Your task to perform on an android device: Search for a dining table on Crate & Barrel Image 0: 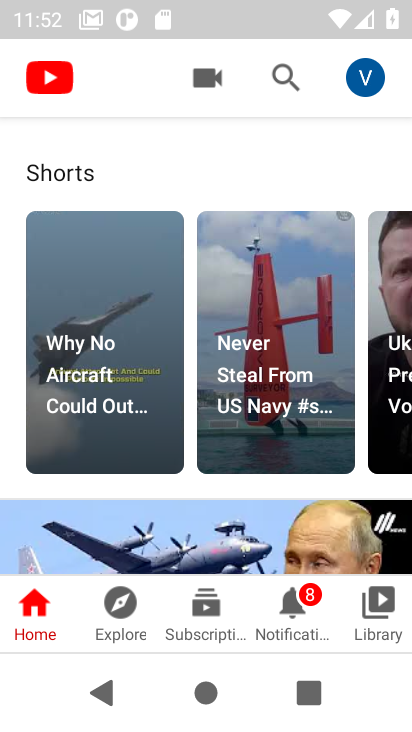
Step 0: press home button
Your task to perform on an android device: Search for a dining table on Crate & Barrel Image 1: 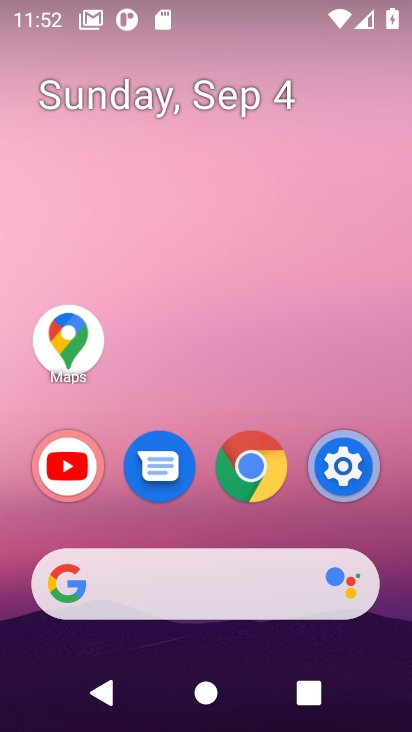
Step 1: click (268, 465)
Your task to perform on an android device: Search for a dining table on Crate & Barrel Image 2: 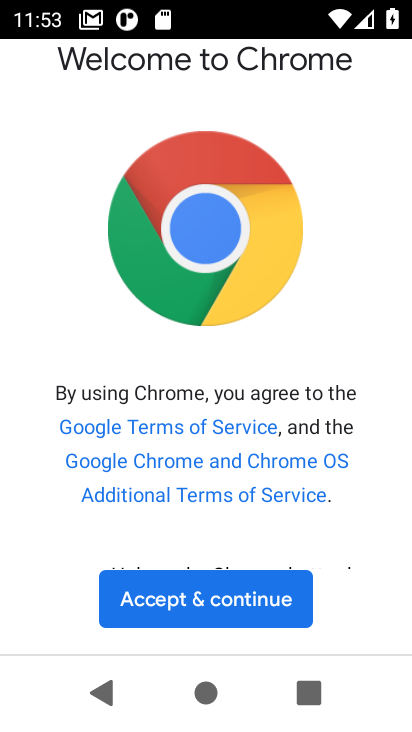
Step 2: click (192, 586)
Your task to perform on an android device: Search for a dining table on Crate & Barrel Image 3: 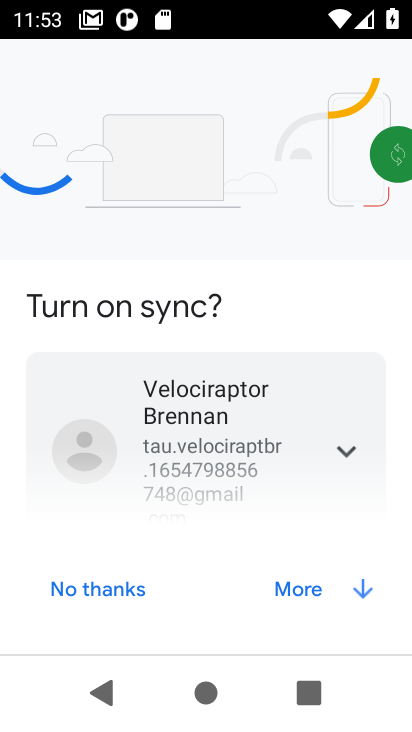
Step 3: press home button
Your task to perform on an android device: Search for a dining table on Crate & Barrel Image 4: 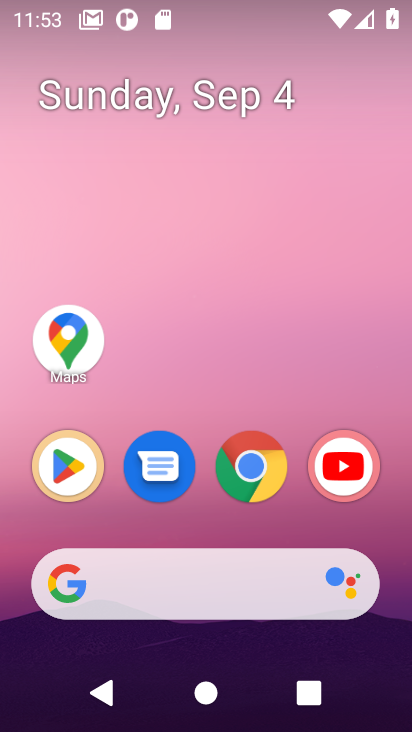
Step 4: click (224, 472)
Your task to perform on an android device: Search for a dining table on Crate & Barrel Image 5: 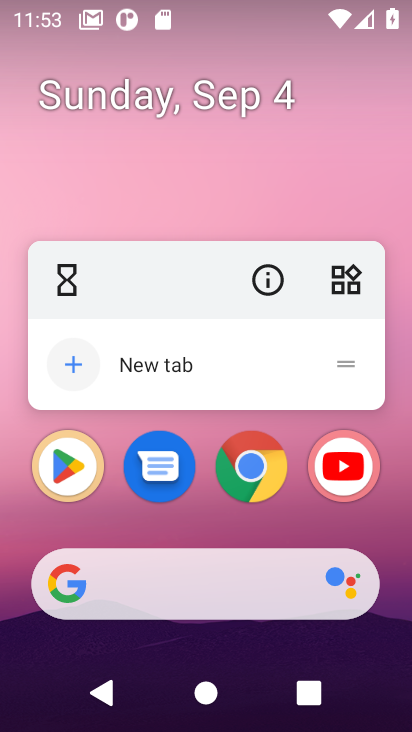
Step 5: click (240, 479)
Your task to perform on an android device: Search for a dining table on Crate & Barrel Image 6: 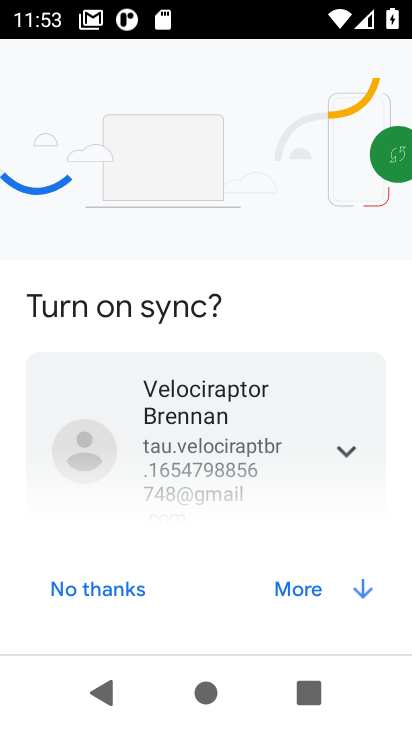
Step 6: click (303, 580)
Your task to perform on an android device: Search for a dining table on Crate & Barrel Image 7: 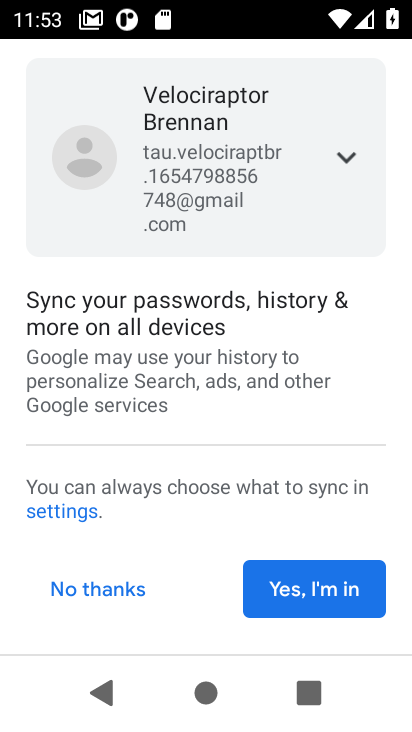
Step 7: click (303, 580)
Your task to perform on an android device: Search for a dining table on Crate & Barrel Image 8: 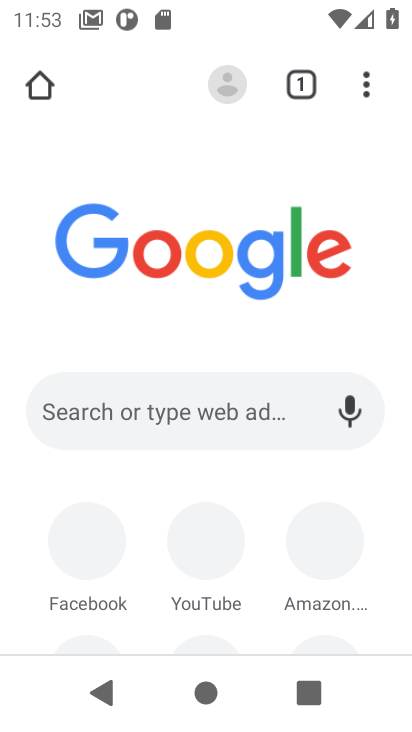
Step 8: click (193, 680)
Your task to perform on an android device: Search for a dining table on Crate & Barrel Image 9: 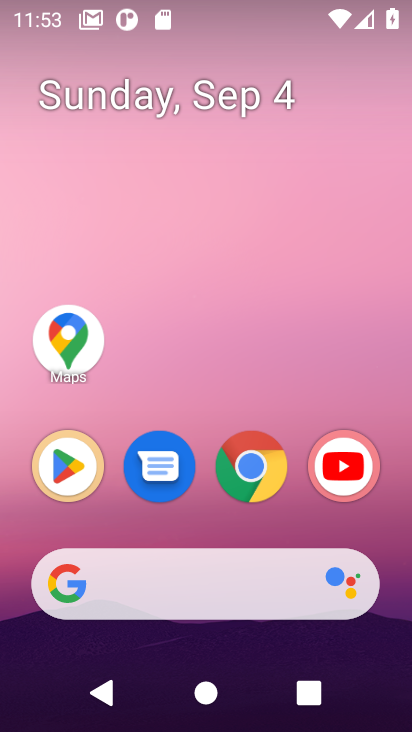
Step 9: click (300, 487)
Your task to perform on an android device: Search for a dining table on Crate & Barrel Image 10: 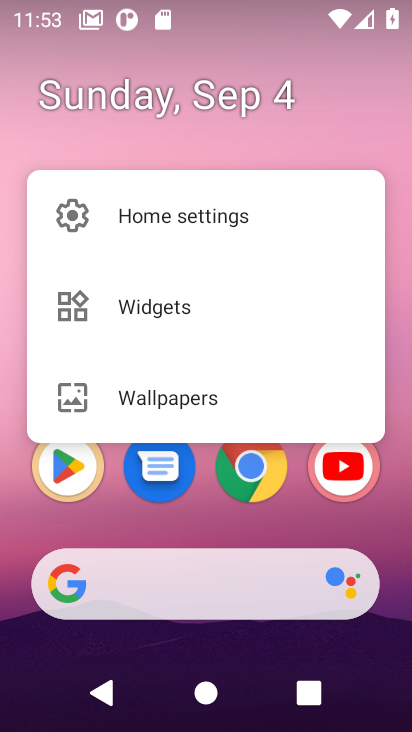
Step 10: click (270, 477)
Your task to perform on an android device: Search for a dining table on Crate & Barrel Image 11: 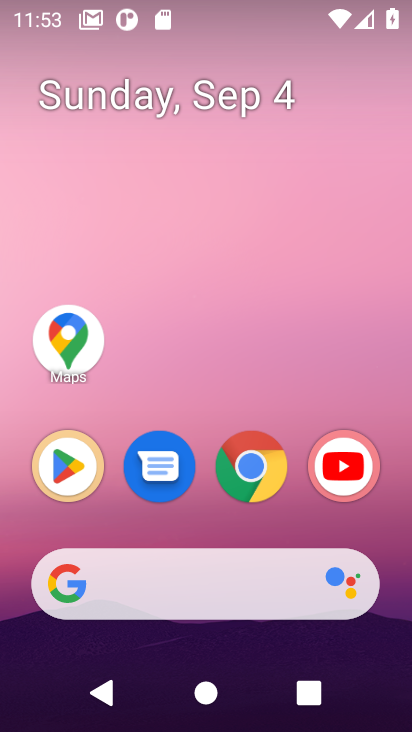
Step 11: drag from (315, 545) to (361, 2)
Your task to perform on an android device: Search for a dining table on Crate & Barrel Image 12: 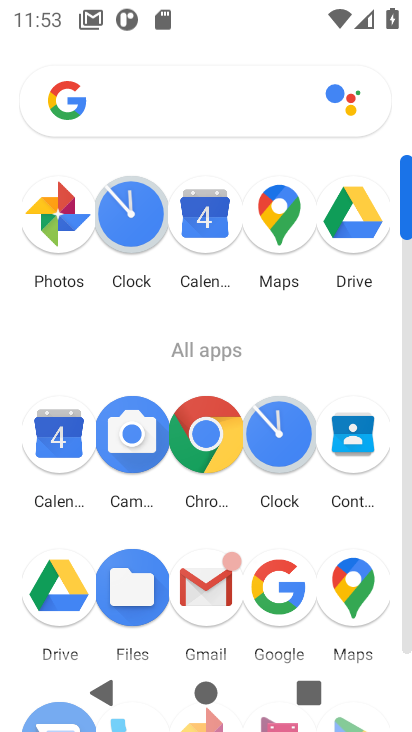
Step 12: click (209, 438)
Your task to perform on an android device: Search for a dining table on Crate & Barrel Image 13: 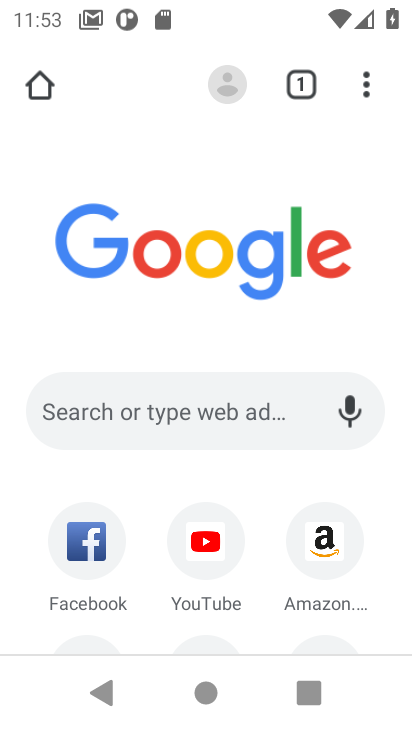
Step 13: click (214, 405)
Your task to perform on an android device: Search for a dining table on Crate & Barrel Image 14: 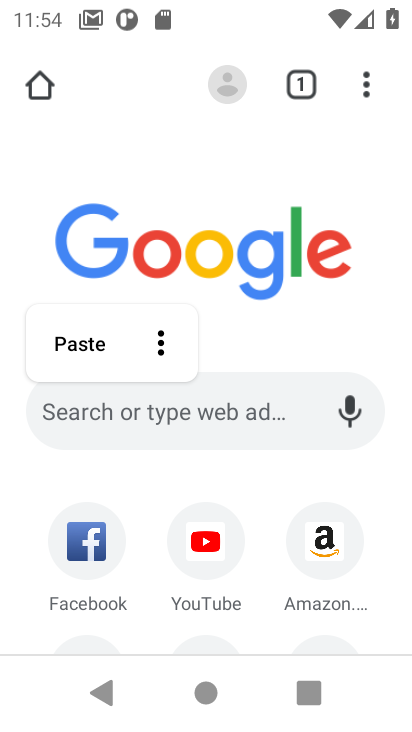
Step 14: type "Barrel"
Your task to perform on an android device: Search for a dining table on Crate & Barrel Image 15: 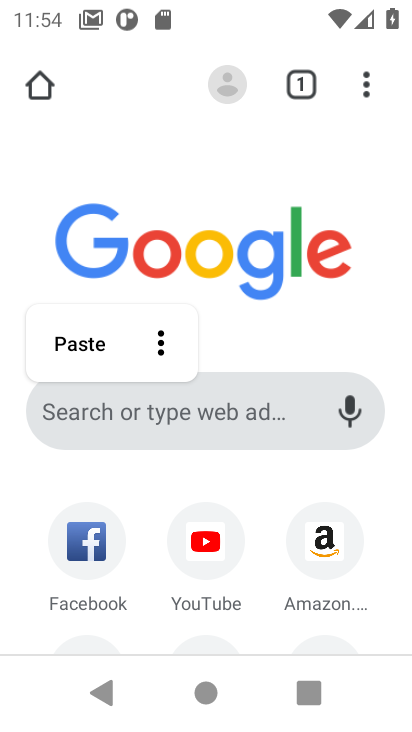
Step 15: click (61, 343)
Your task to perform on an android device: Search for a dining table on Crate & Barrel Image 16: 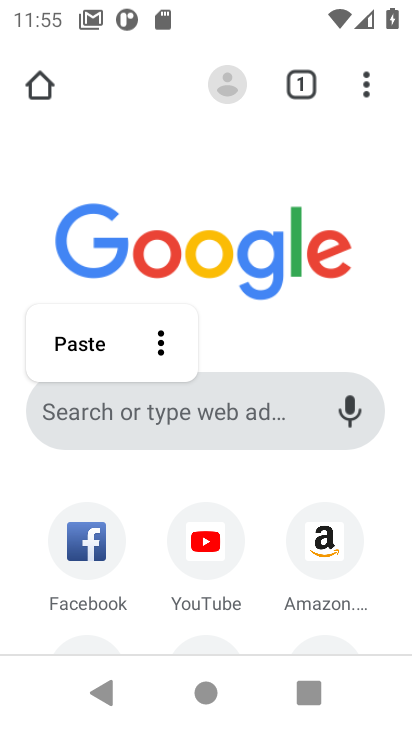
Step 16: click (223, 415)
Your task to perform on an android device: Search for a dining table on Crate & Barrel Image 17: 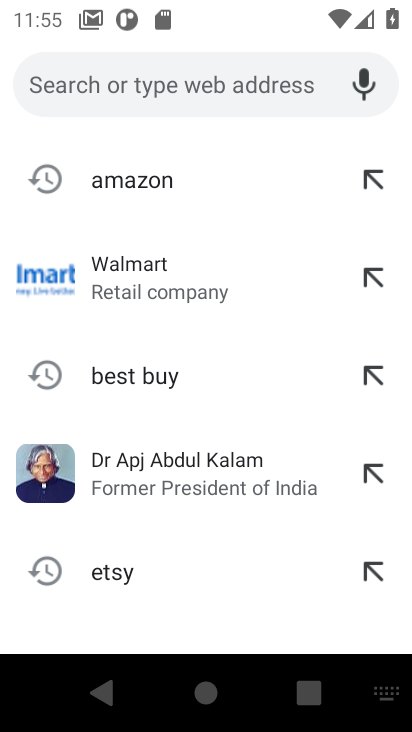
Step 17: type "Barrel"
Your task to perform on an android device: Search for a dining table on Crate & Barrel Image 18: 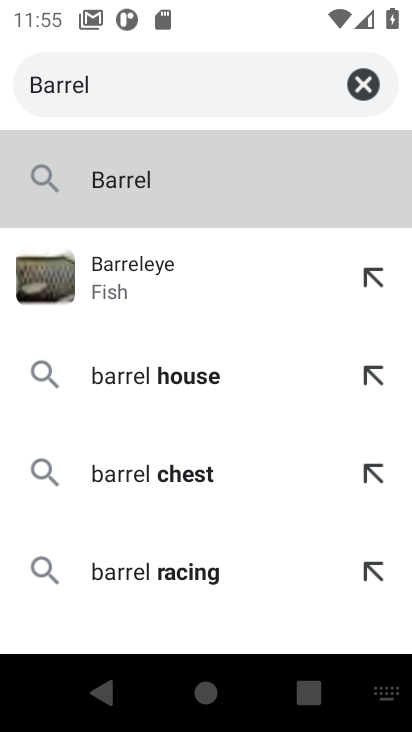
Step 18: click (104, 183)
Your task to perform on an android device: Search for a dining table on Crate & Barrel Image 19: 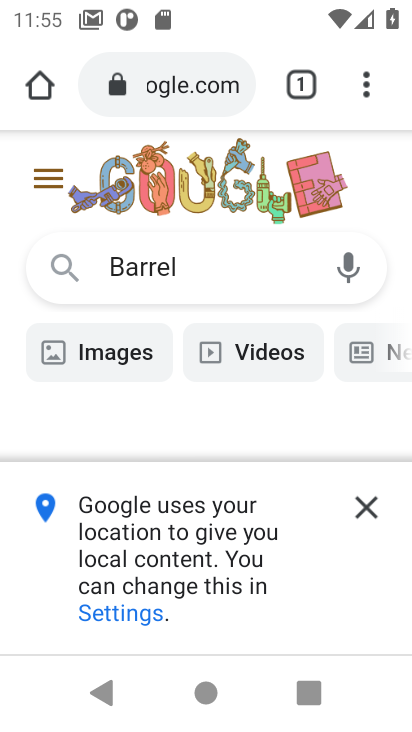
Step 19: click (370, 510)
Your task to perform on an android device: Search for a dining table on Crate & Barrel Image 20: 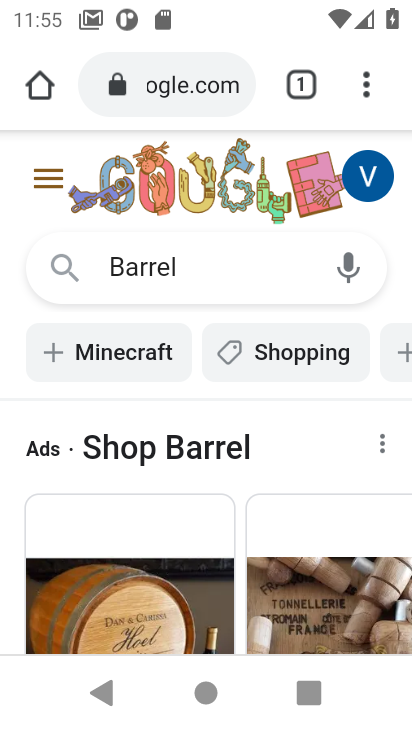
Step 20: drag from (269, 461) to (321, 130)
Your task to perform on an android device: Search for a dining table on Crate & Barrel Image 21: 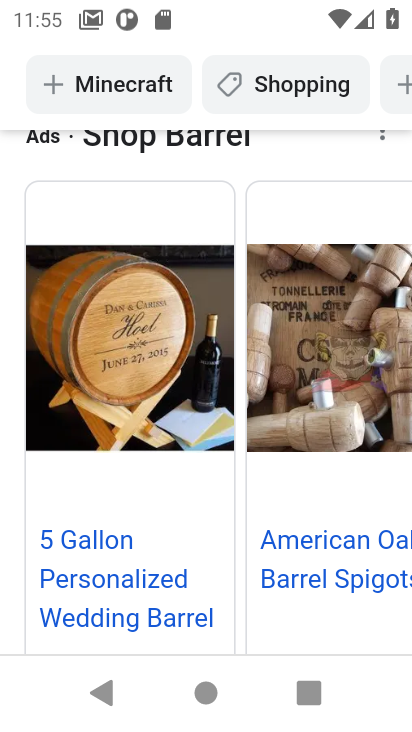
Step 21: click (183, 131)
Your task to perform on an android device: Search for a dining table on Crate & Barrel Image 22: 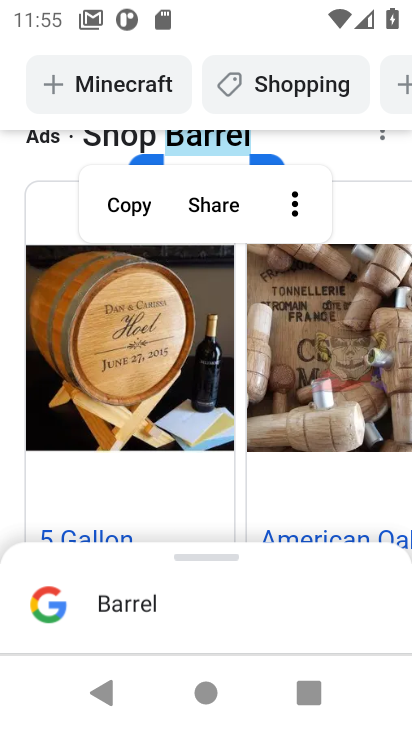
Step 22: click (210, 141)
Your task to perform on an android device: Search for a dining table on Crate & Barrel Image 23: 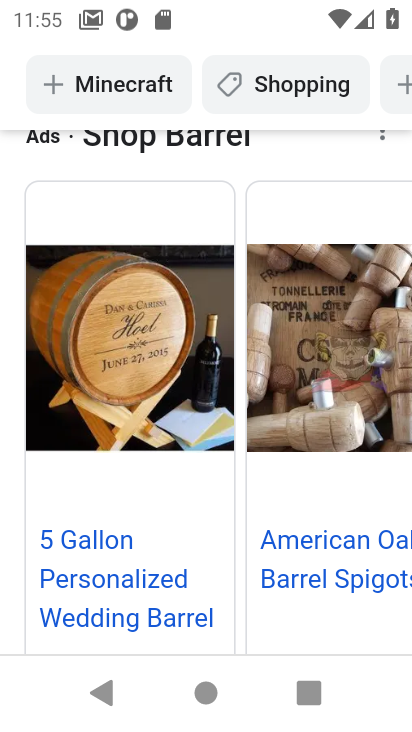
Step 23: drag from (210, 333) to (209, 538)
Your task to perform on an android device: Search for a dining table on Crate & Barrel Image 24: 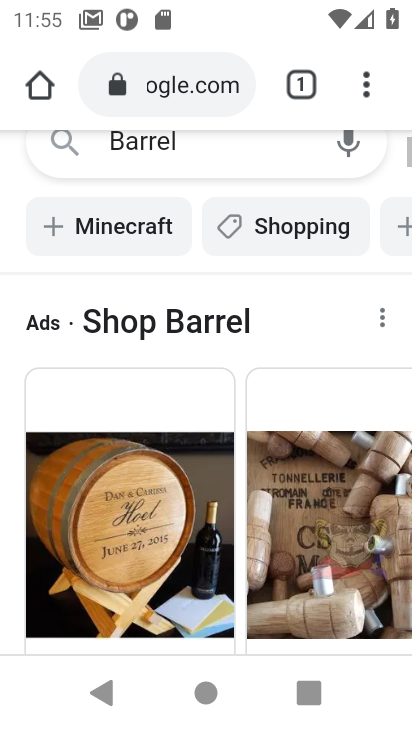
Step 24: drag from (201, 531) to (211, 142)
Your task to perform on an android device: Search for a dining table on Crate & Barrel Image 25: 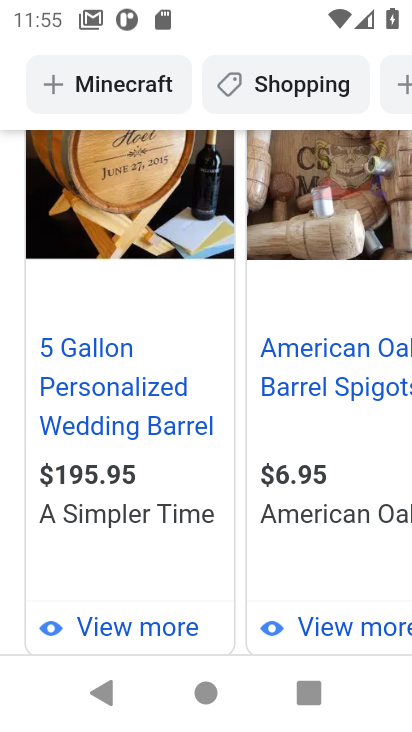
Step 25: drag from (204, 457) to (234, 181)
Your task to perform on an android device: Search for a dining table on Crate & Barrel Image 26: 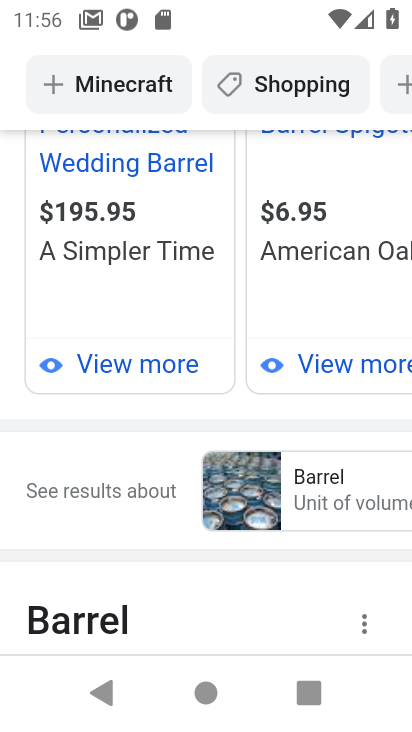
Step 26: drag from (176, 400) to (238, 174)
Your task to perform on an android device: Search for a dining table on Crate & Barrel Image 27: 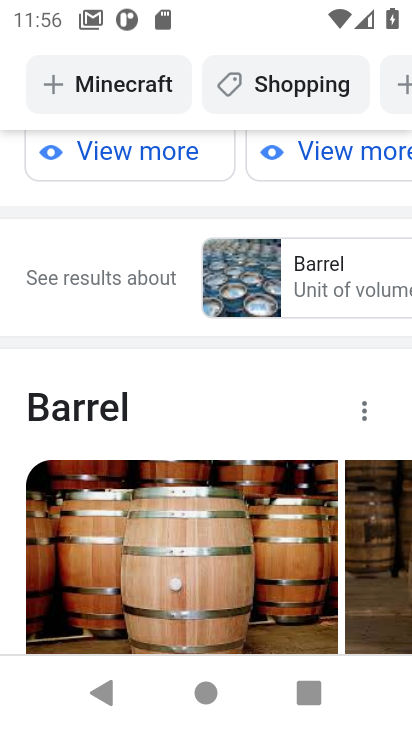
Step 27: drag from (152, 567) to (194, 227)
Your task to perform on an android device: Search for a dining table on Crate & Barrel Image 28: 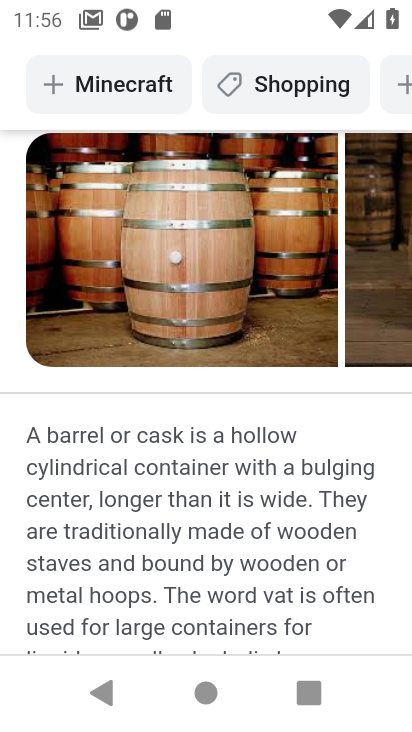
Step 28: drag from (185, 509) to (289, 221)
Your task to perform on an android device: Search for a dining table on Crate & Barrel Image 29: 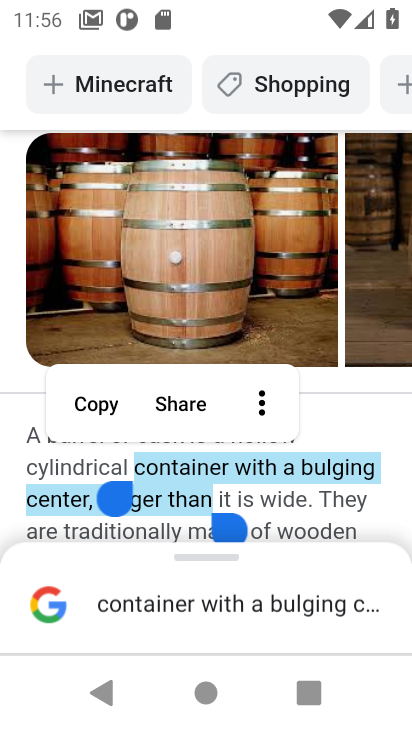
Step 29: click (365, 400)
Your task to perform on an android device: Search for a dining table on Crate & Barrel Image 30: 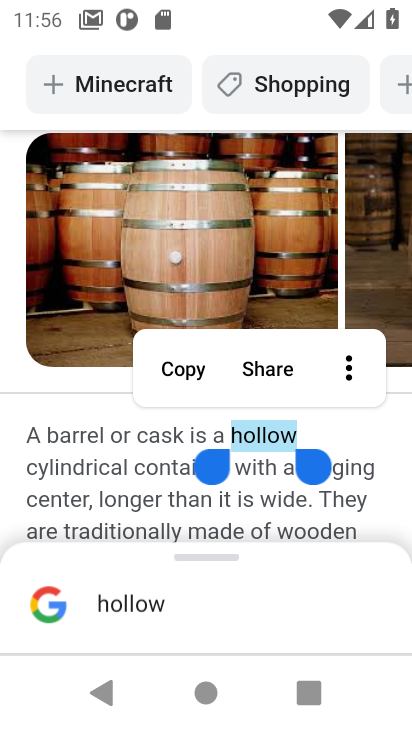
Step 30: drag from (249, 518) to (362, 211)
Your task to perform on an android device: Search for a dining table on Crate & Barrel Image 31: 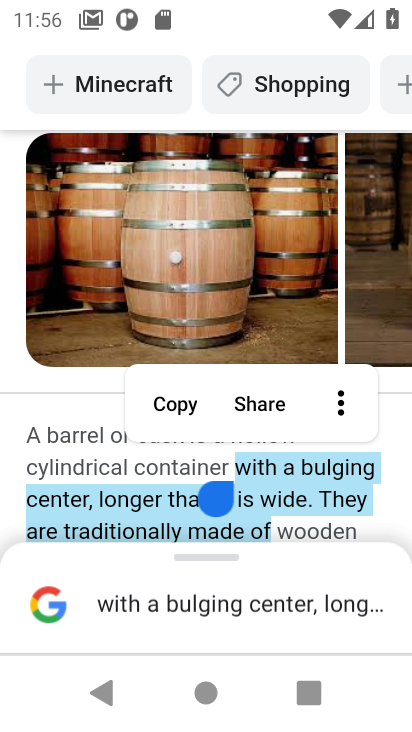
Step 31: click (389, 510)
Your task to perform on an android device: Search for a dining table on Crate & Barrel Image 32: 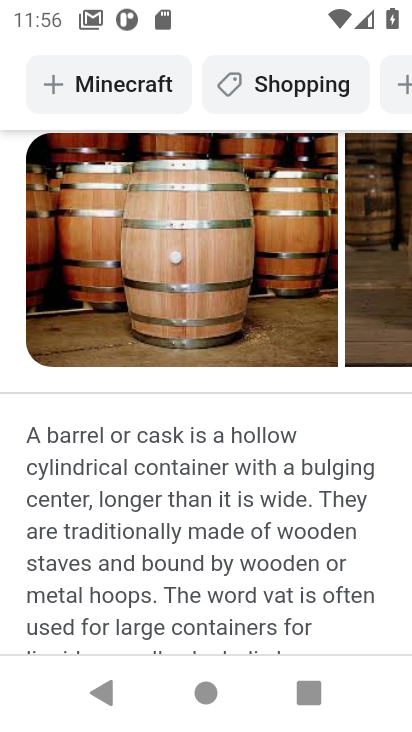
Step 32: drag from (391, 519) to (348, 140)
Your task to perform on an android device: Search for a dining table on Crate & Barrel Image 33: 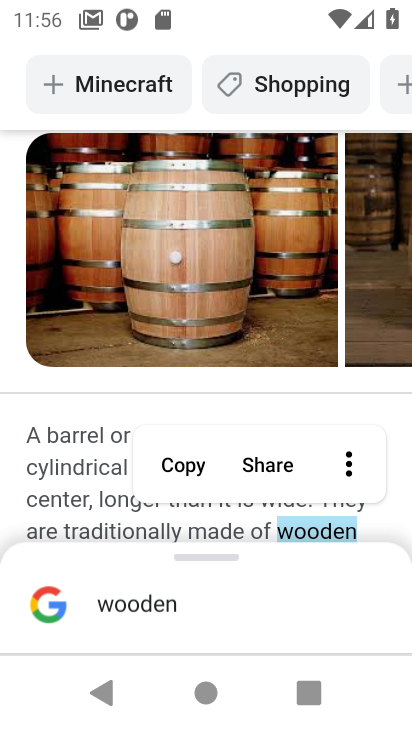
Step 33: drag from (328, 424) to (283, 116)
Your task to perform on an android device: Search for a dining table on Crate & Barrel Image 34: 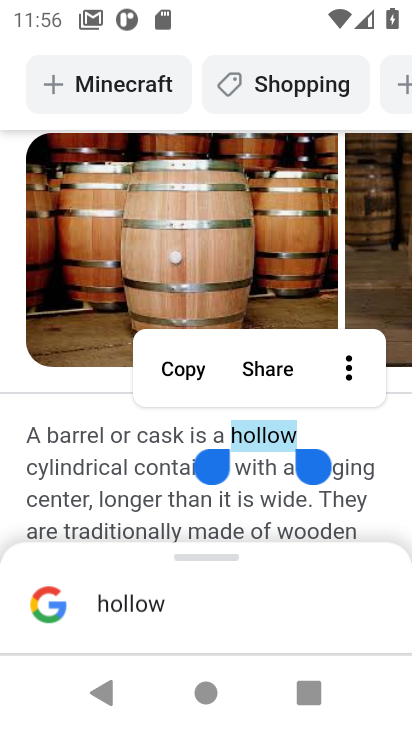
Step 34: click (34, 398)
Your task to perform on an android device: Search for a dining table on Crate & Barrel Image 35: 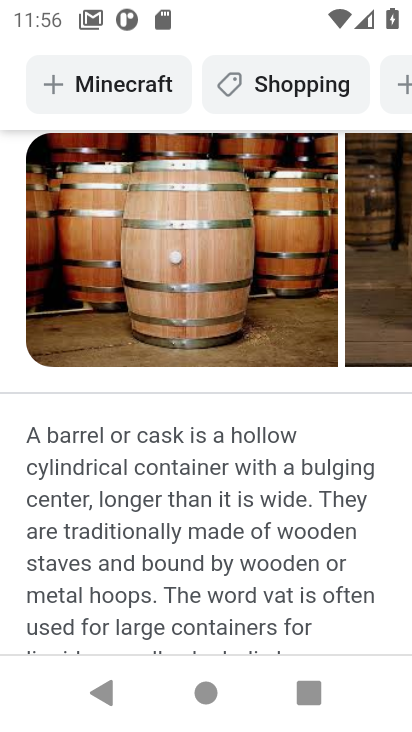
Step 35: task complete